Your task to perform on an android device: Add "sony triple a" to the cart on amazon.com, then select checkout. Image 0: 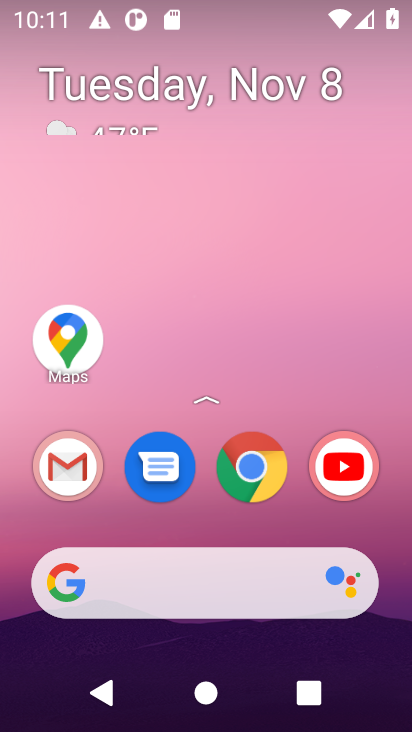
Step 0: click (178, 576)
Your task to perform on an android device: Add "sony triple a" to the cart on amazon.com, then select checkout. Image 1: 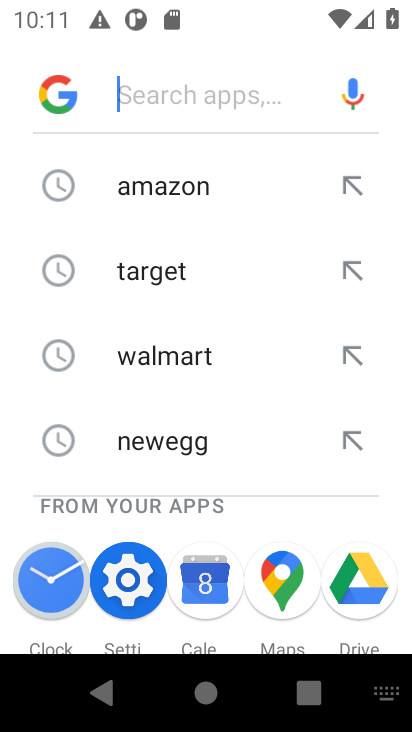
Step 1: click (218, 197)
Your task to perform on an android device: Add "sony triple a" to the cart on amazon.com, then select checkout. Image 2: 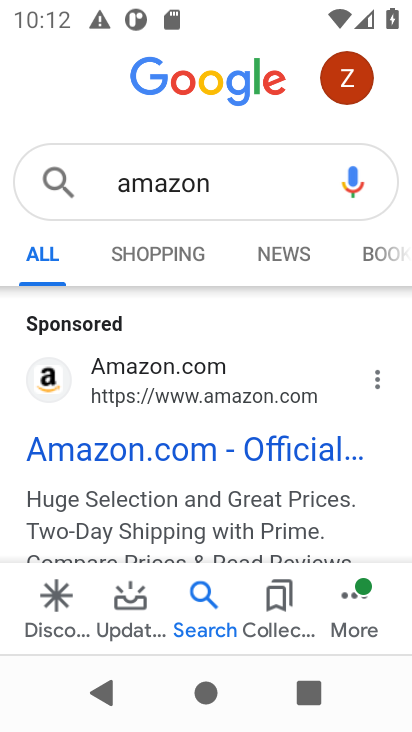
Step 2: click (137, 431)
Your task to perform on an android device: Add "sony triple a" to the cart on amazon.com, then select checkout. Image 3: 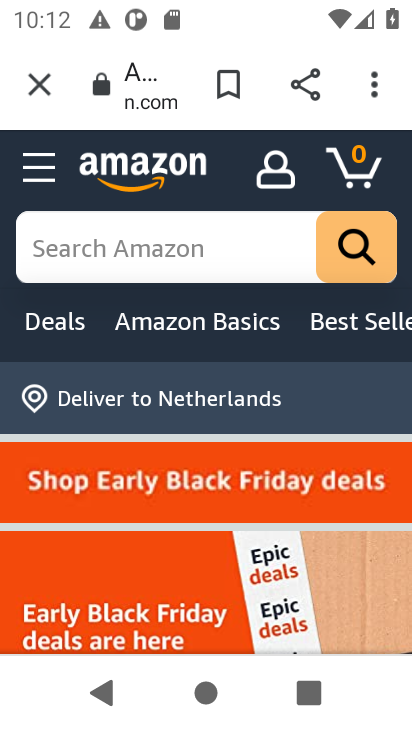
Step 3: click (147, 250)
Your task to perform on an android device: Add "sony triple a" to the cart on amazon.com, then select checkout. Image 4: 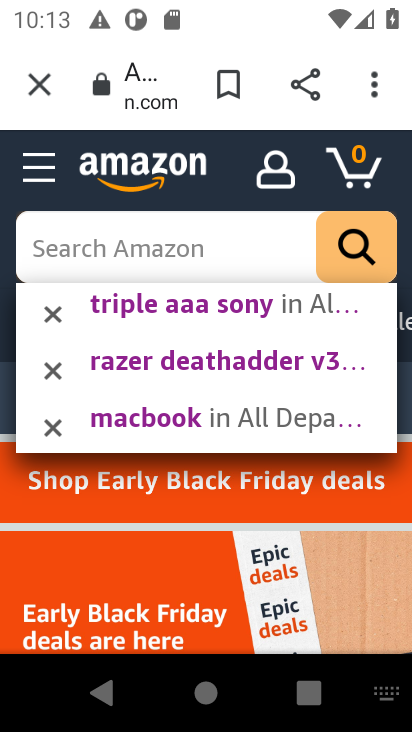
Step 4: task complete